Your task to perform on an android device: open app "Spotify: Music and Podcasts" (install if not already installed) and enter user name: "principled@inbox.com" and password: "arrests" Image 0: 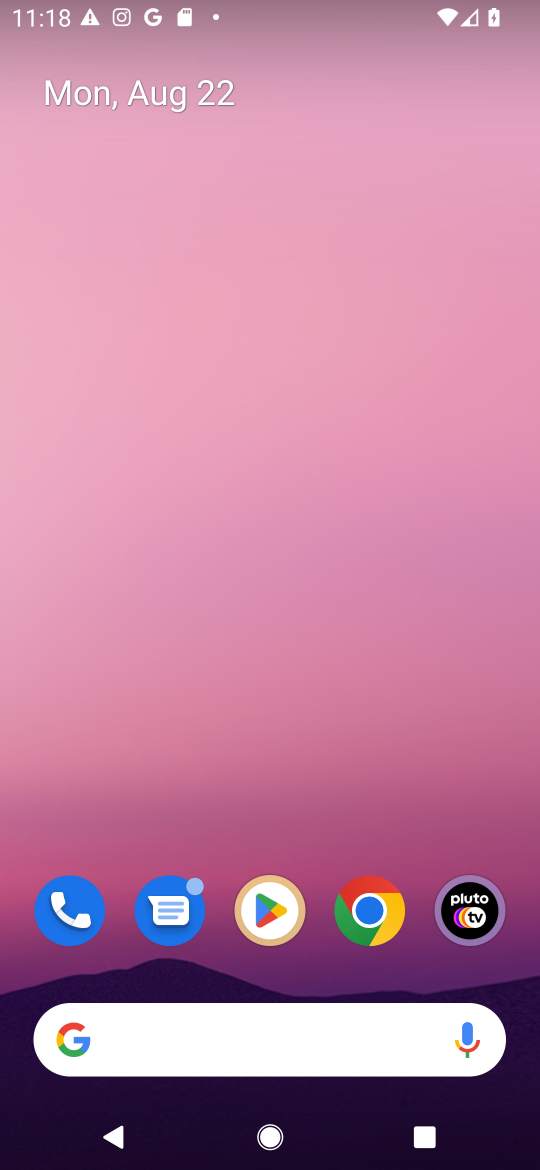
Step 0: click (248, 927)
Your task to perform on an android device: open app "Spotify: Music and Podcasts" (install if not already installed) and enter user name: "principled@inbox.com" and password: "arrests" Image 1: 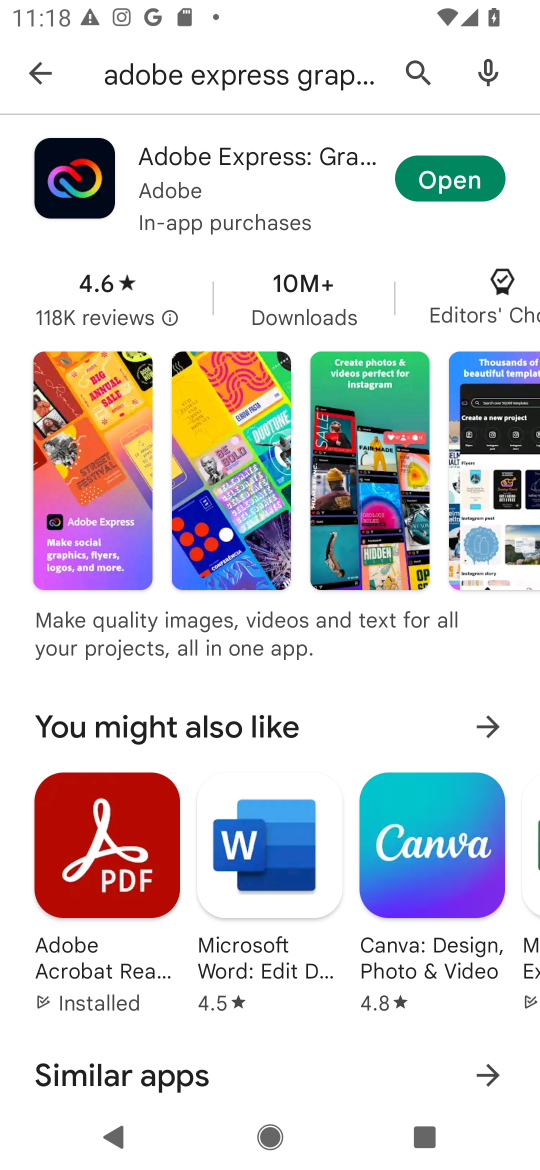
Step 1: click (405, 70)
Your task to perform on an android device: open app "Spotify: Music and Podcasts" (install if not already installed) and enter user name: "principled@inbox.com" and password: "arrests" Image 2: 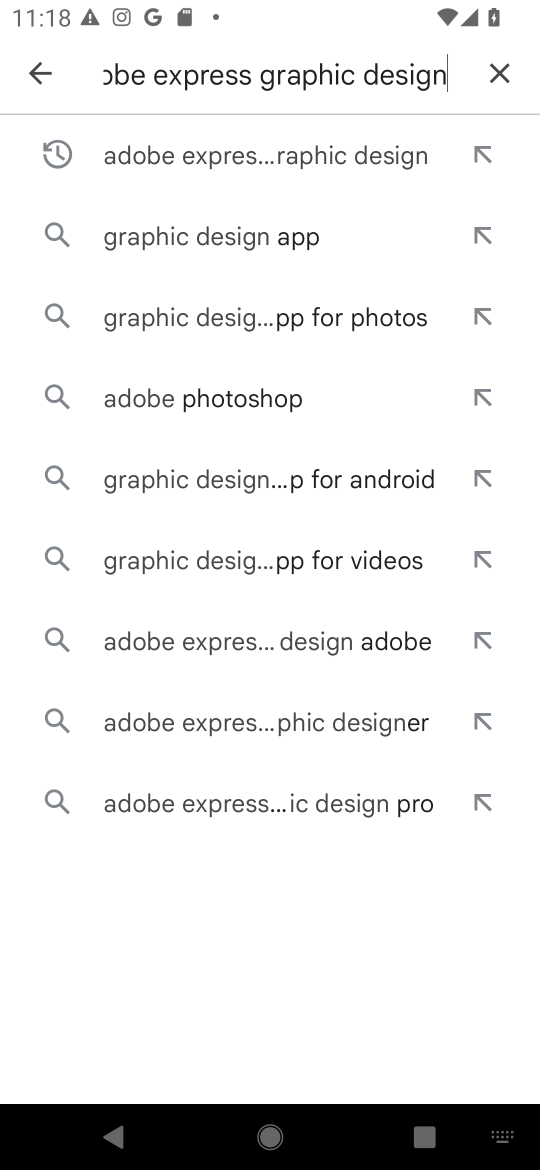
Step 2: click (514, 70)
Your task to perform on an android device: open app "Spotify: Music and Podcasts" (install if not already installed) and enter user name: "principled@inbox.com" and password: "arrests" Image 3: 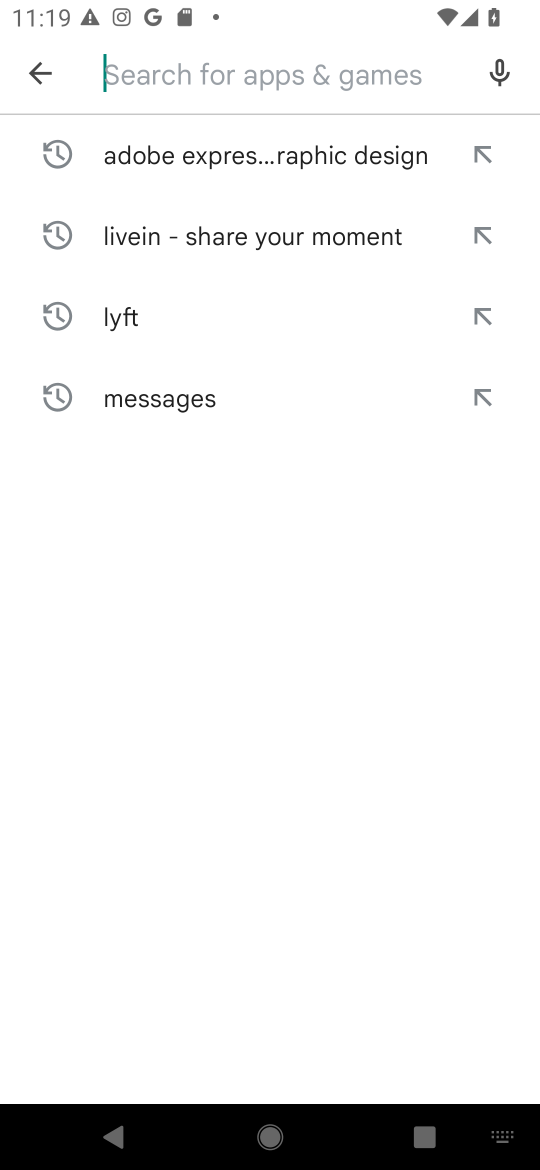
Step 3: type "Spotify: Music and Podcasts"
Your task to perform on an android device: open app "Spotify: Music and Podcasts" (install if not already installed) and enter user name: "principled@inbox.com" and password: "arrests" Image 4: 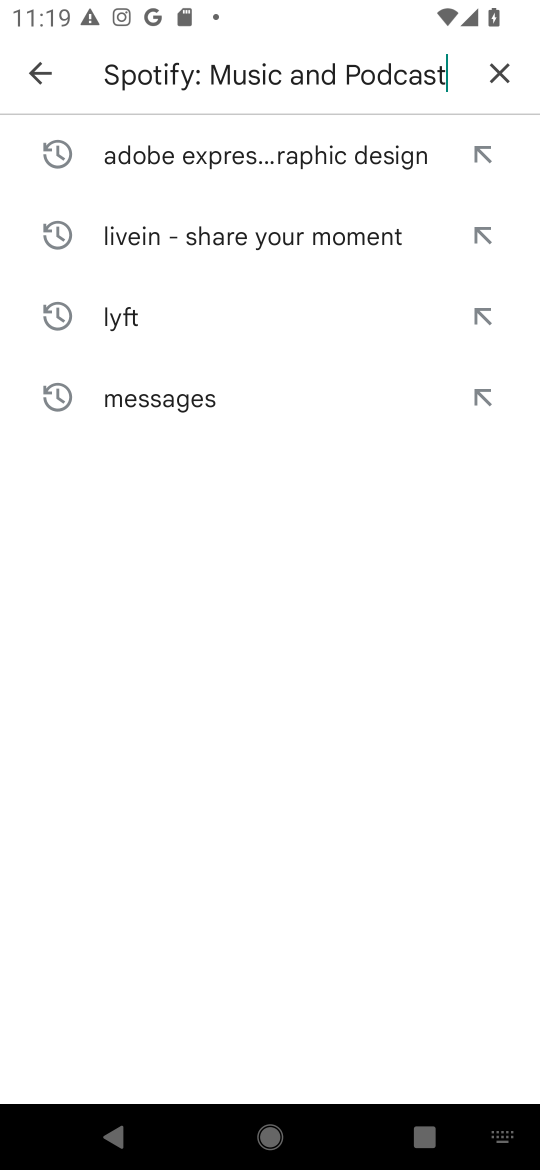
Step 4: type ""
Your task to perform on an android device: open app "Spotify: Music and Podcasts" (install if not already installed) and enter user name: "principled@inbox.com" and password: "arrests" Image 5: 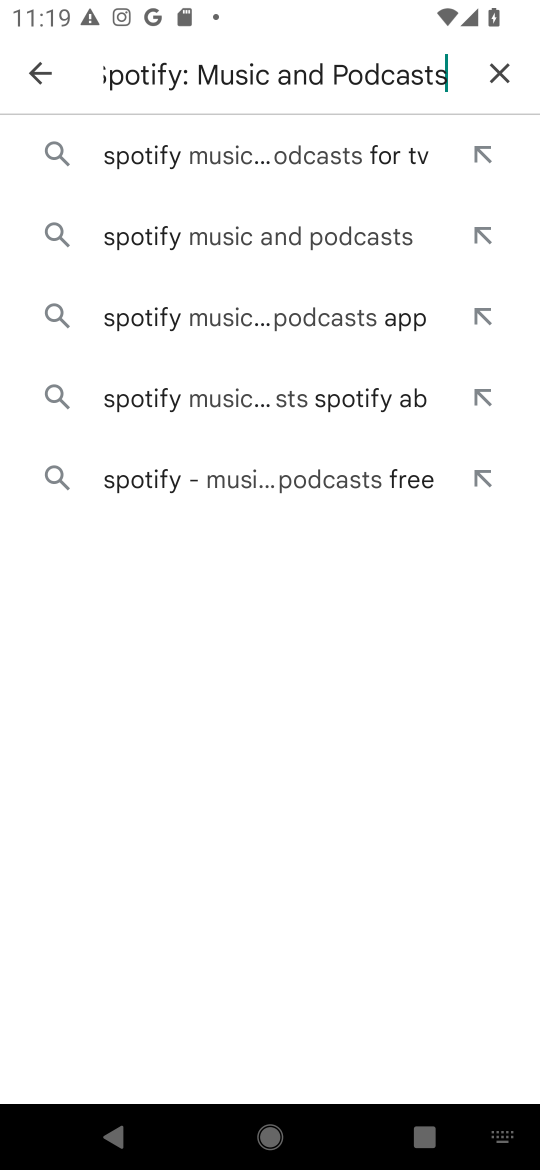
Step 5: click (242, 138)
Your task to perform on an android device: open app "Spotify: Music and Podcasts" (install if not already installed) and enter user name: "principled@inbox.com" and password: "arrests" Image 6: 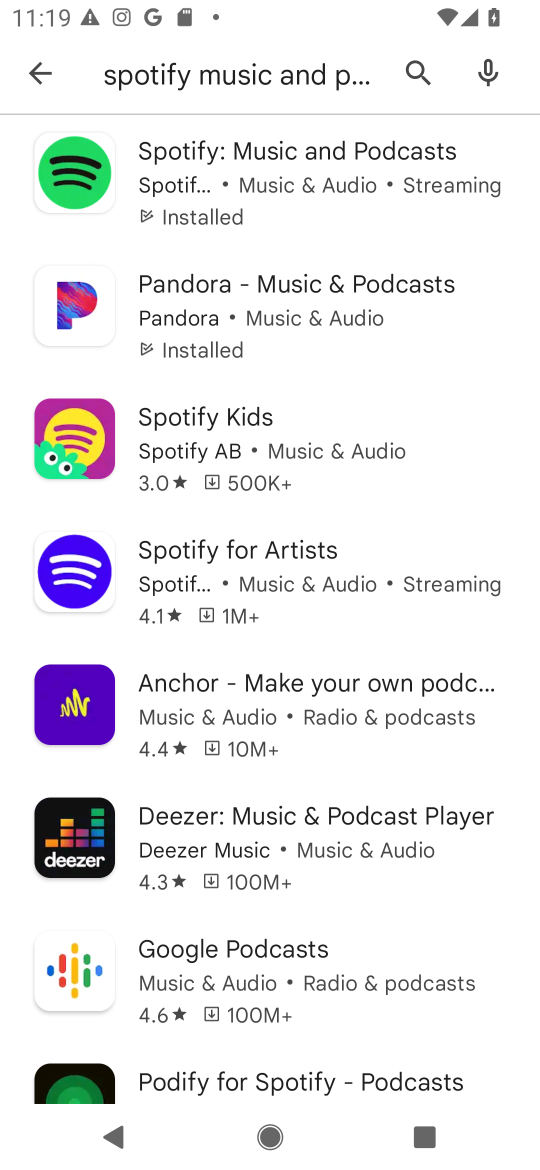
Step 6: click (293, 192)
Your task to perform on an android device: open app "Spotify: Music and Podcasts" (install if not already installed) and enter user name: "principled@inbox.com" and password: "arrests" Image 7: 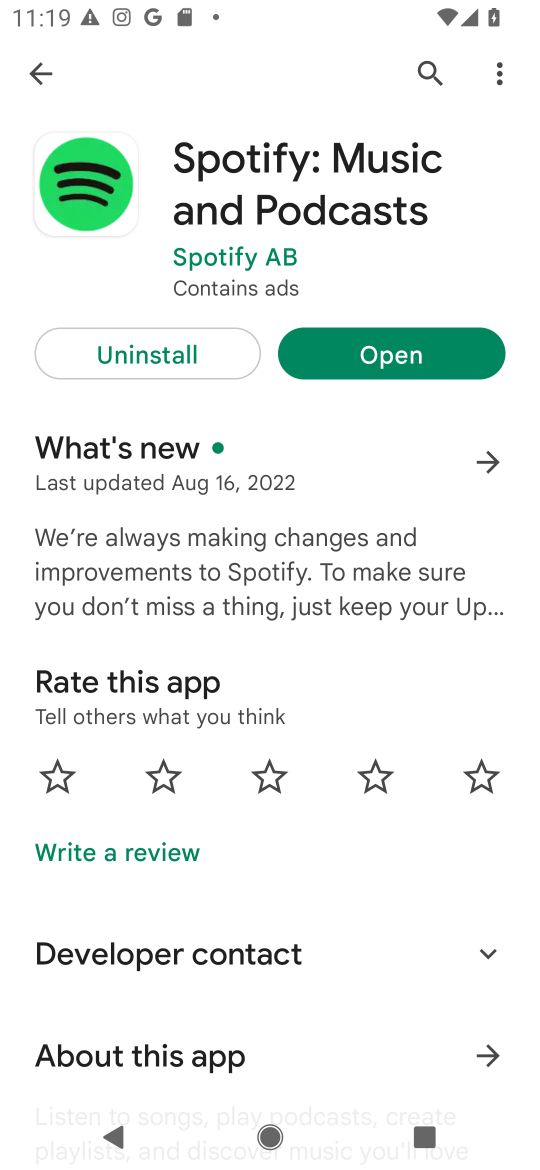
Step 7: click (351, 362)
Your task to perform on an android device: open app "Spotify: Music and Podcasts" (install if not already installed) and enter user name: "principled@inbox.com" and password: "arrests" Image 8: 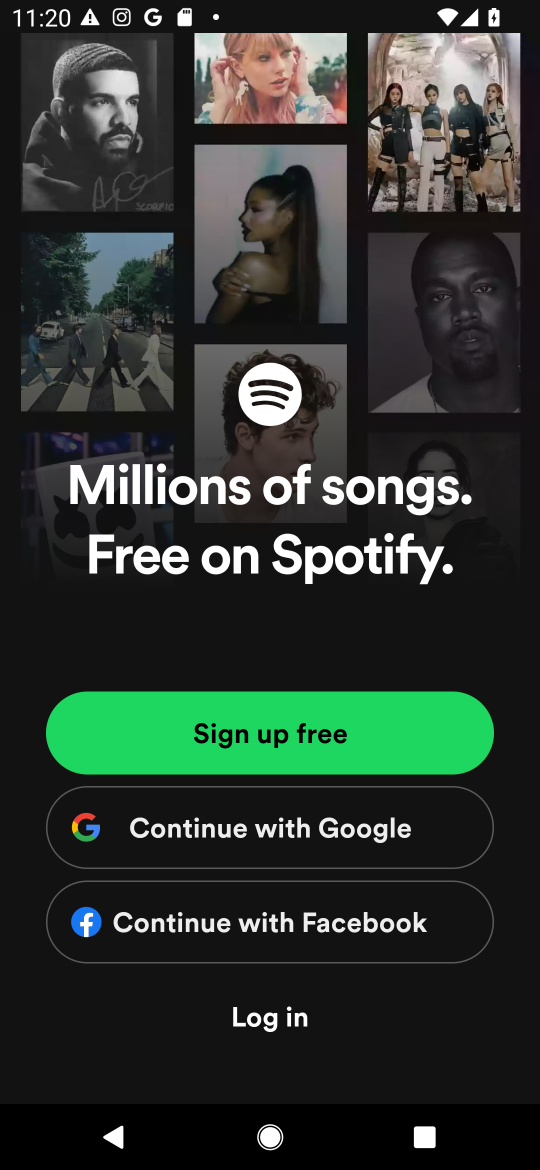
Step 8: task complete